Your task to perform on an android device: Open accessibility settings Image 0: 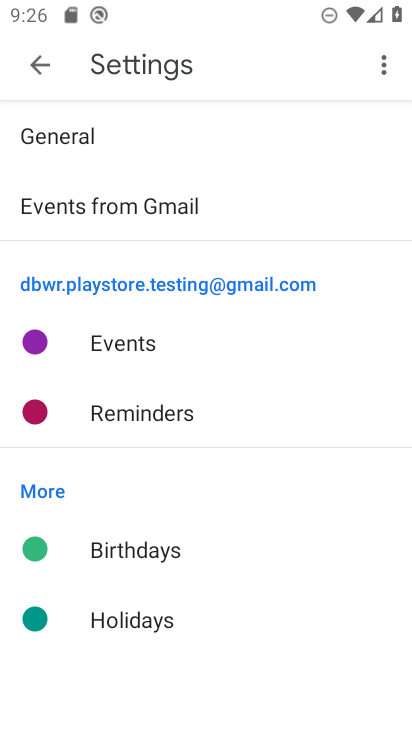
Step 0: press home button
Your task to perform on an android device: Open accessibility settings Image 1: 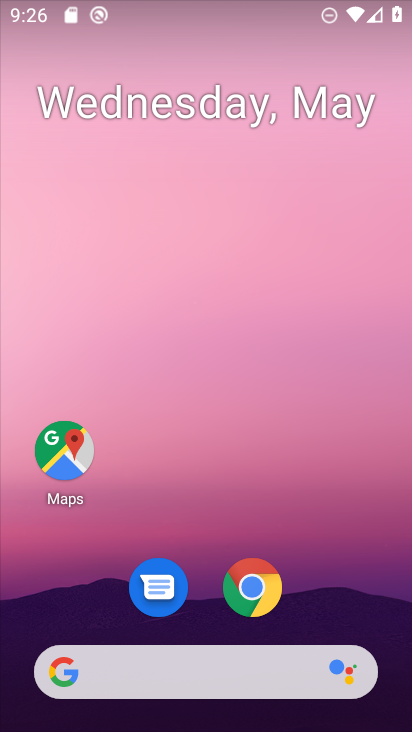
Step 1: drag from (216, 723) to (213, 98)
Your task to perform on an android device: Open accessibility settings Image 2: 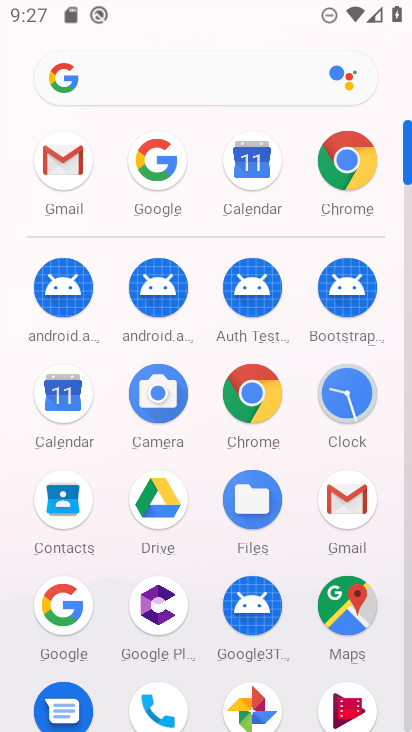
Step 2: drag from (207, 678) to (183, 181)
Your task to perform on an android device: Open accessibility settings Image 3: 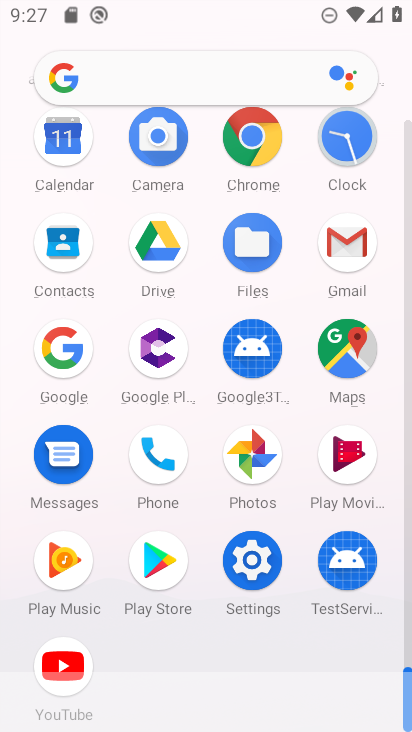
Step 3: click (249, 566)
Your task to perform on an android device: Open accessibility settings Image 4: 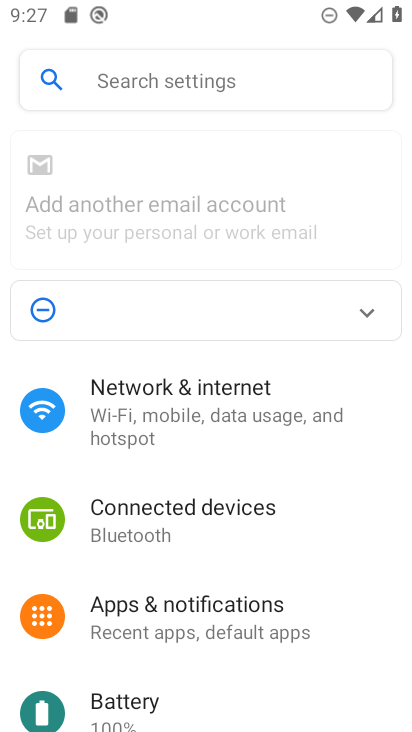
Step 4: drag from (219, 666) to (214, 267)
Your task to perform on an android device: Open accessibility settings Image 5: 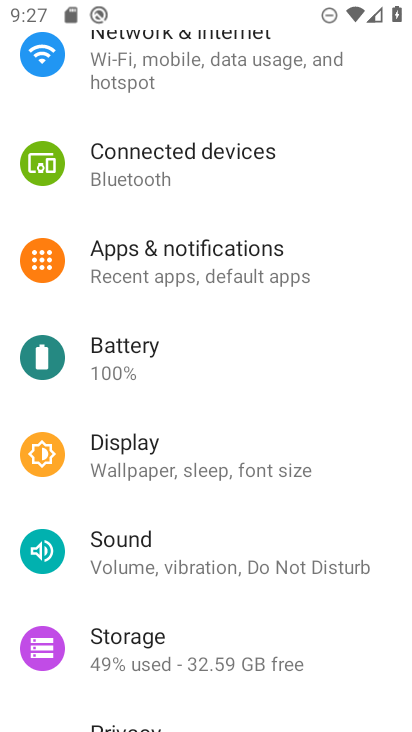
Step 5: drag from (214, 640) to (218, 276)
Your task to perform on an android device: Open accessibility settings Image 6: 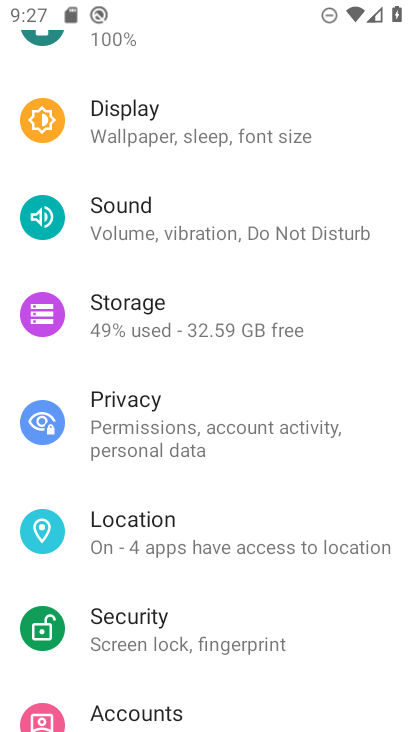
Step 6: drag from (169, 676) to (173, 348)
Your task to perform on an android device: Open accessibility settings Image 7: 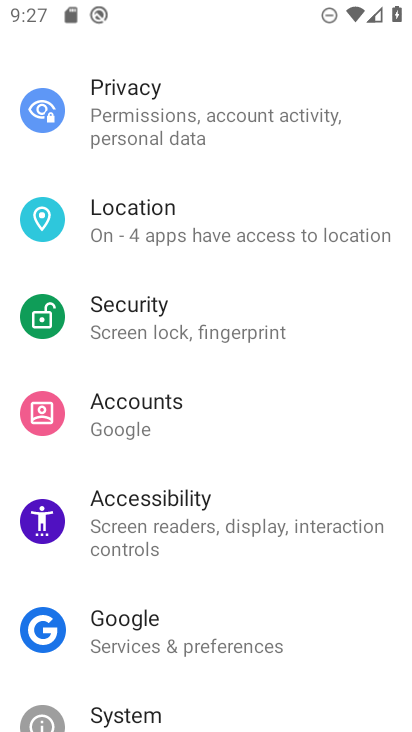
Step 7: click (161, 508)
Your task to perform on an android device: Open accessibility settings Image 8: 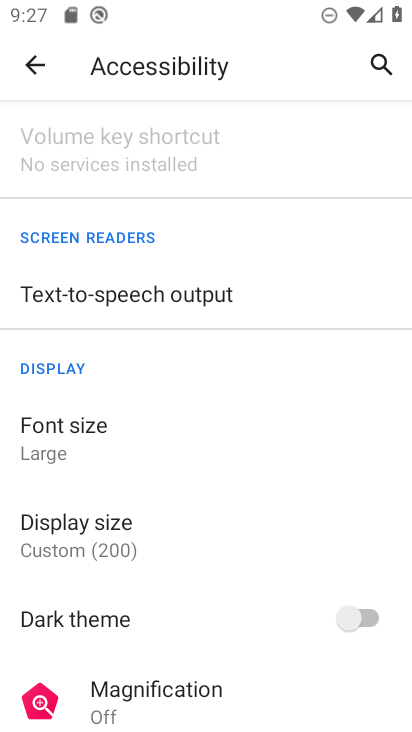
Step 8: task complete